Your task to perform on an android device: Clear the shopping cart on amazon. Search for "macbook pro" on amazon, select the first entry, and add it to the cart. Image 0: 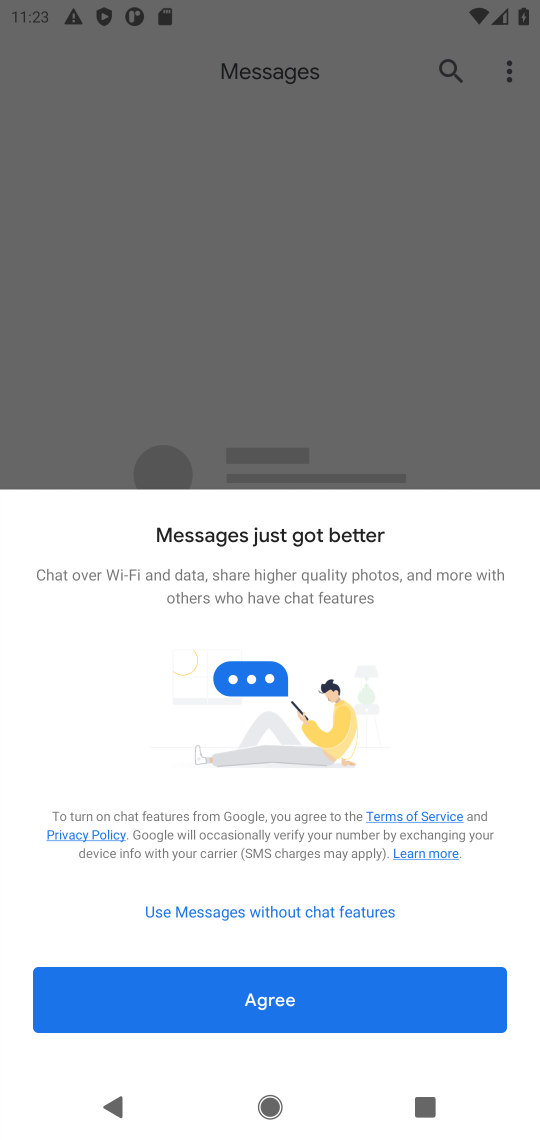
Step 0: press home button
Your task to perform on an android device: Clear the shopping cart on amazon. Search for "macbook pro" on amazon, select the first entry, and add it to the cart. Image 1: 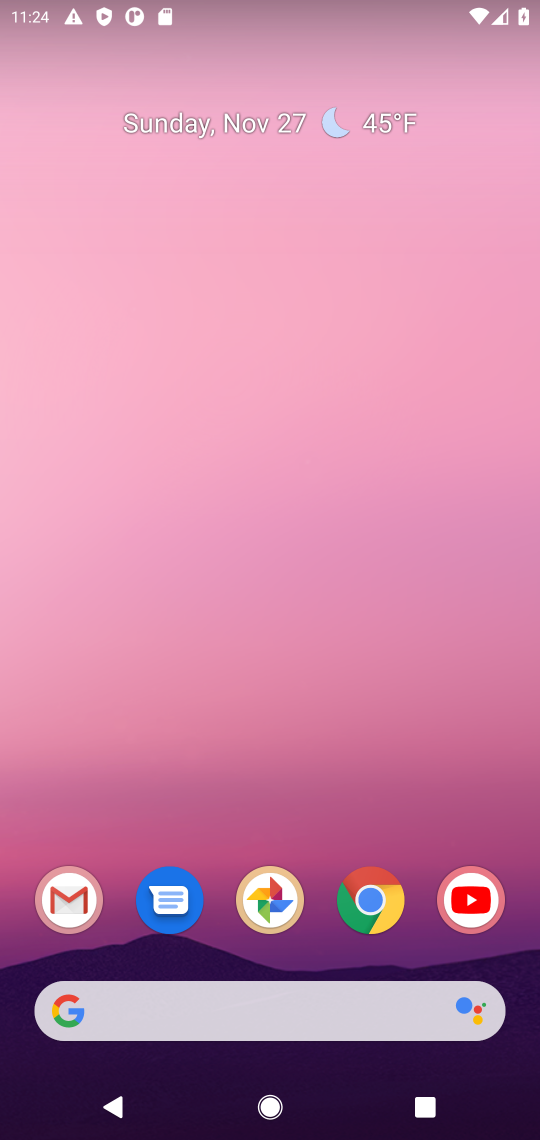
Step 1: click (365, 922)
Your task to perform on an android device: Clear the shopping cart on amazon. Search for "macbook pro" on amazon, select the first entry, and add it to the cart. Image 2: 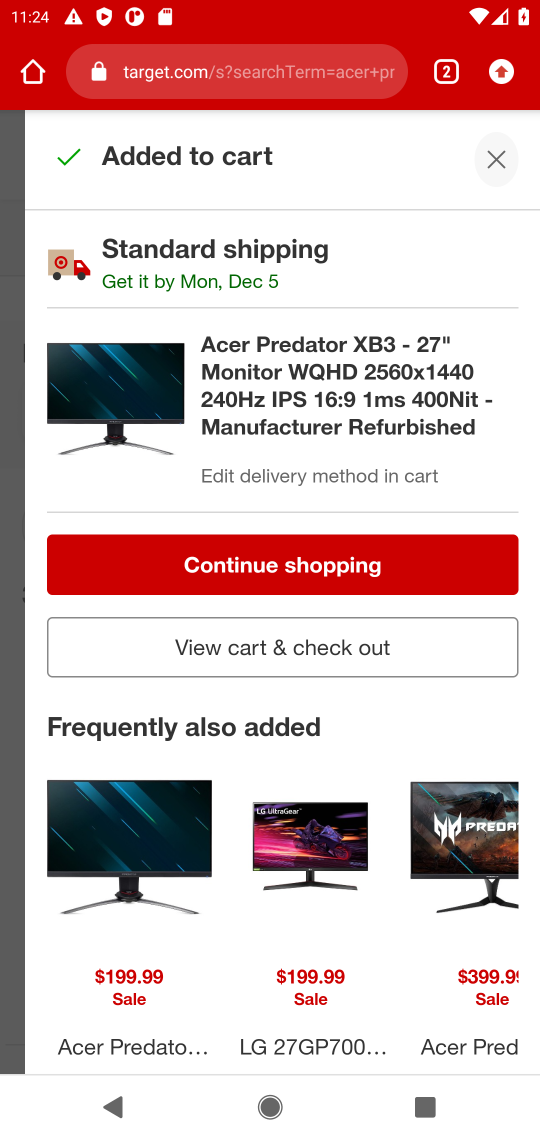
Step 2: click (241, 73)
Your task to perform on an android device: Clear the shopping cart on amazon. Search for "macbook pro" on amazon, select the first entry, and add it to the cart. Image 3: 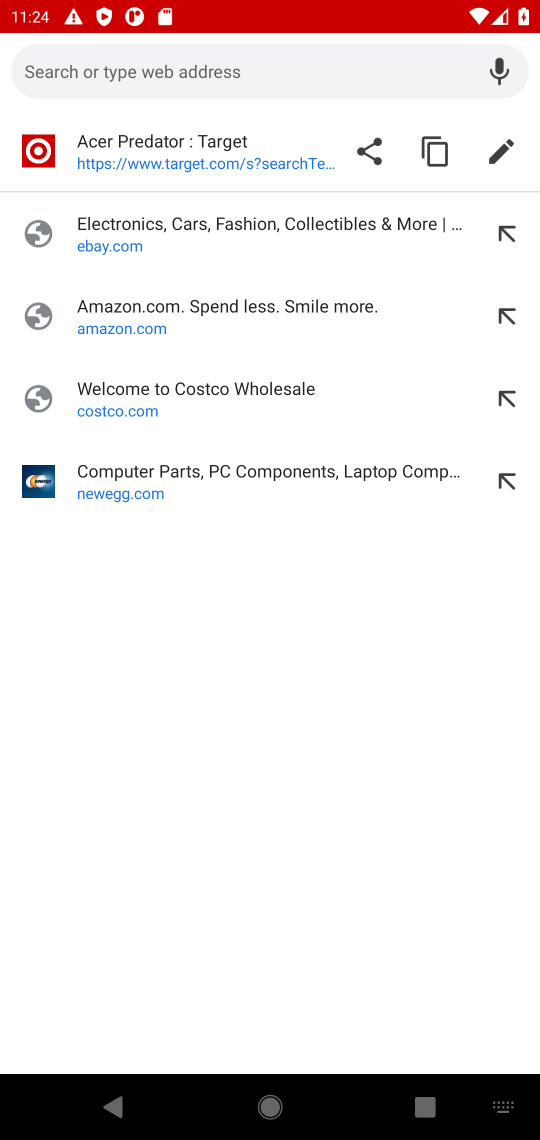
Step 3: click (106, 300)
Your task to perform on an android device: Clear the shopping cart on amazon. Search for "macbook pro" on amazon, select the first entry, and add it to the cart. Image 4: 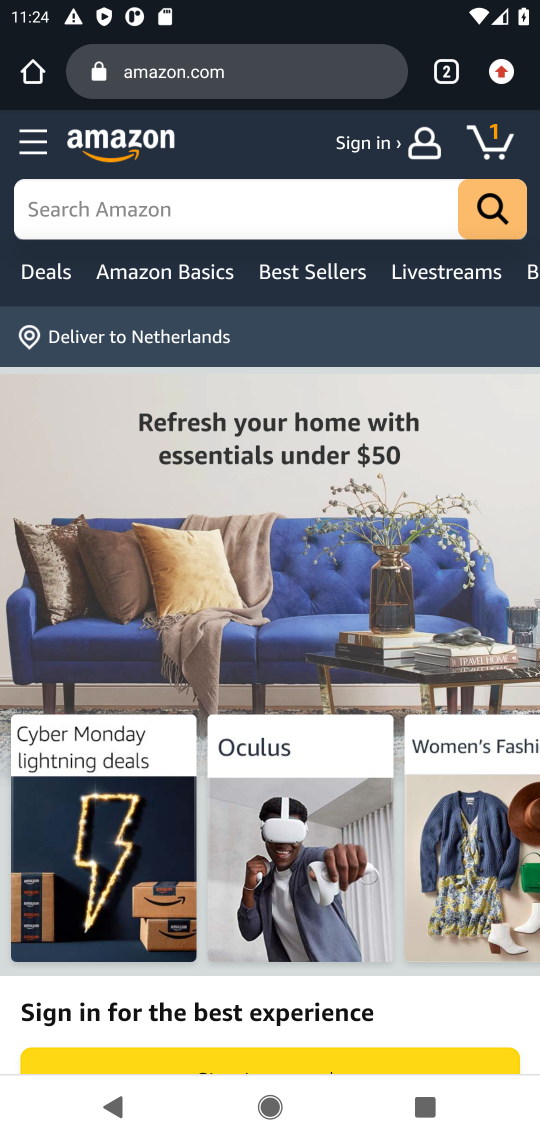
Step 4: click (490, 147)
Your task to perform on an android device: Clear the shopping cart on amazon. Search for "macbook pro" on amazon, select the first entry, and add it to the cart. Image 5: 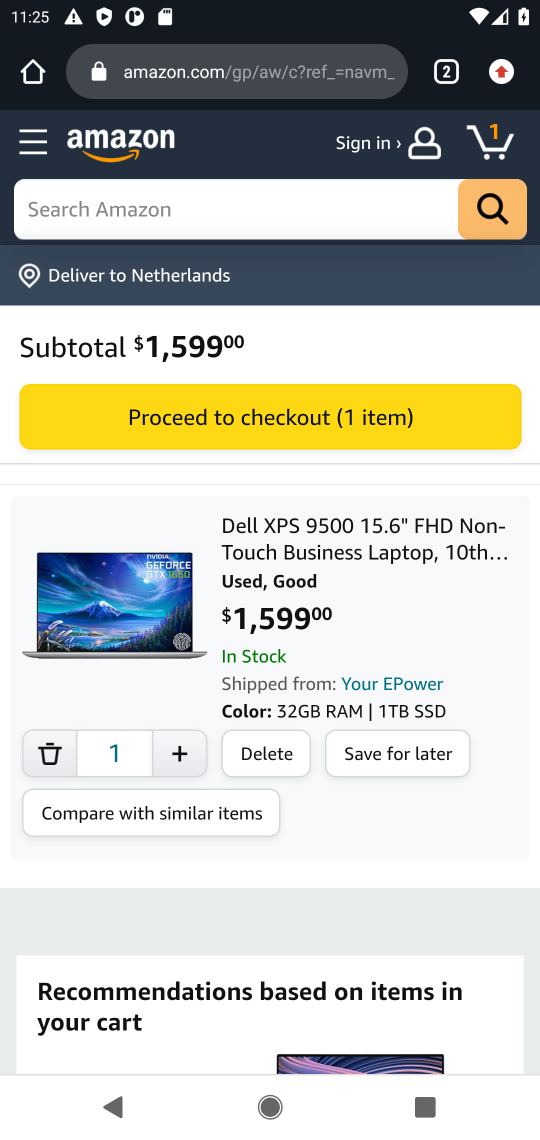
Step 5: click (48, 752)
Your task to perform on an android device: Clear the shopping cart on amazon. Search for "macbook pro" on amazon, select the first entry, and add it to the cart. Image 6: 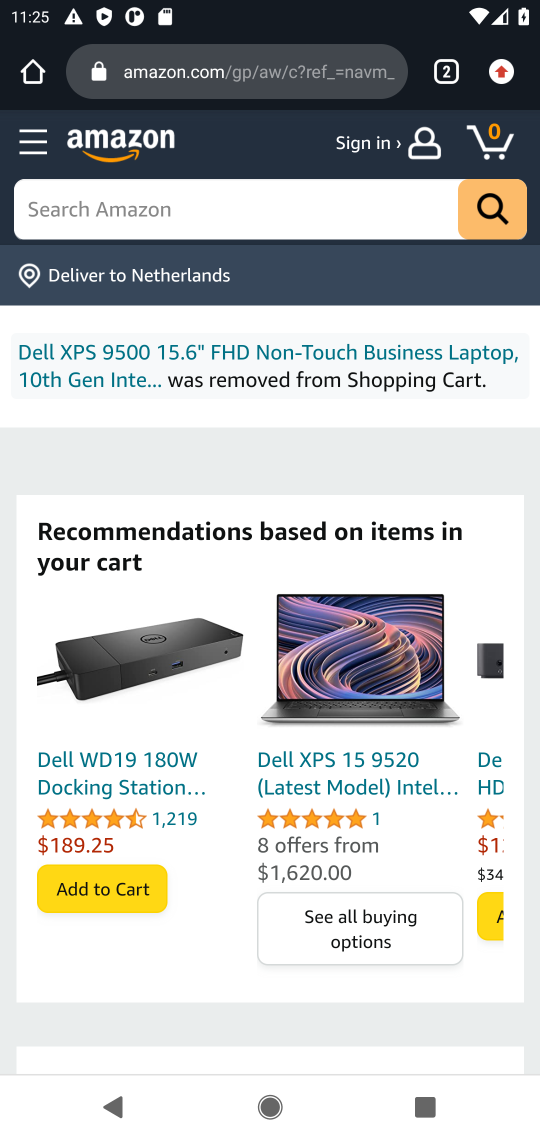
Step 6: click (112, 208)
Your task to perform on an android device: Clear the shopping cart on amazon. Search for "macbook pro" on amazon, select the first entry, and add it to the cart. Image 7: 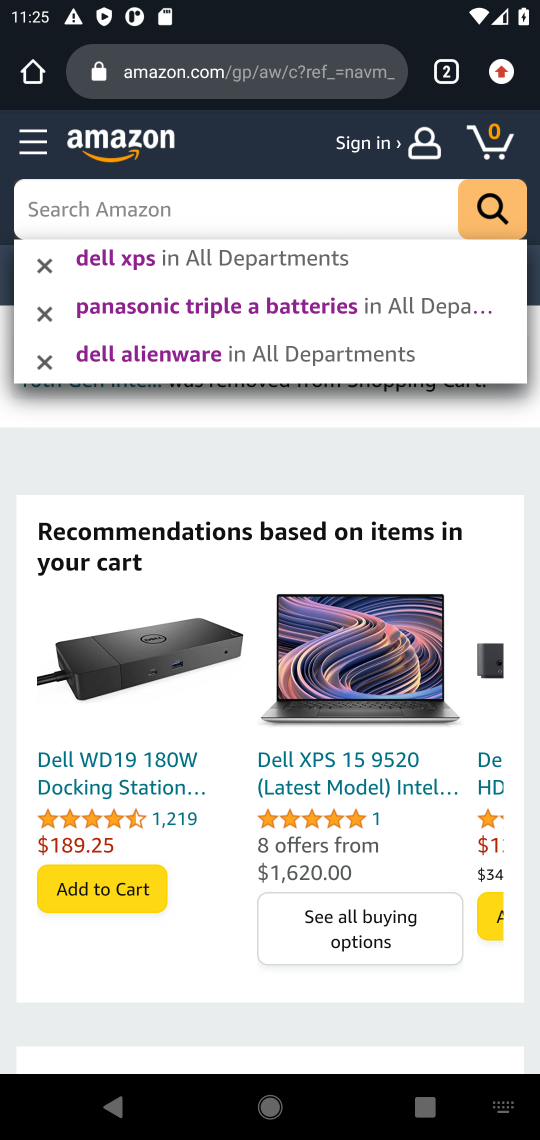
Step 7: type "macbook pro"
Your task to perform on an android device: Clear the shopping cart on amazon. Search for "macbook pro" on amazon, select the first entry, and add it to the cart. Image 8: 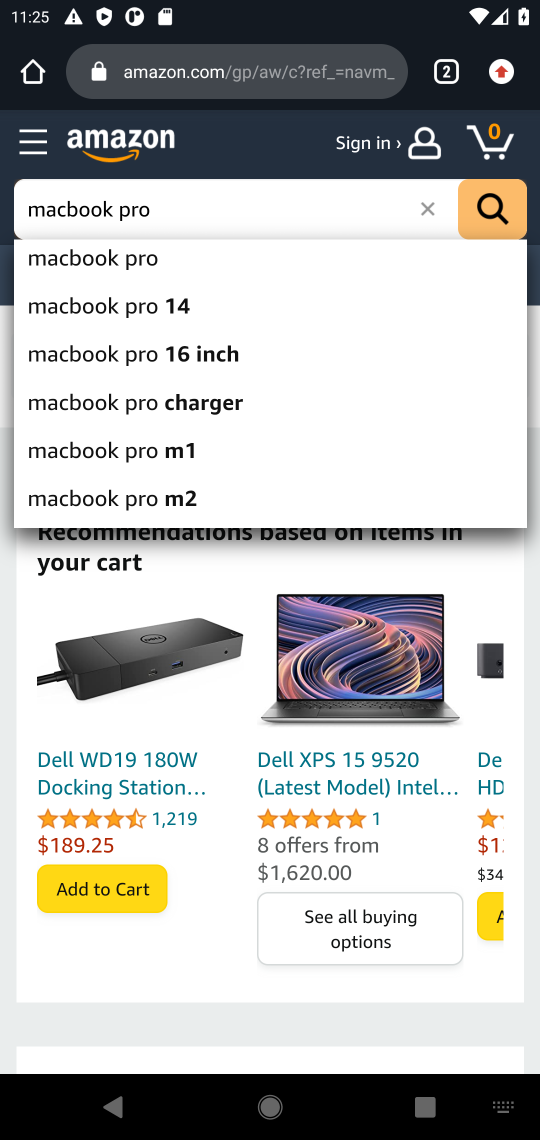
Step 8: click (64, 267)
Your task to perform on an android device: Clear the shopping cart on amazon. Search for "macbook pro" on amazon, select the first entry, and add it to the cart. Image 9: 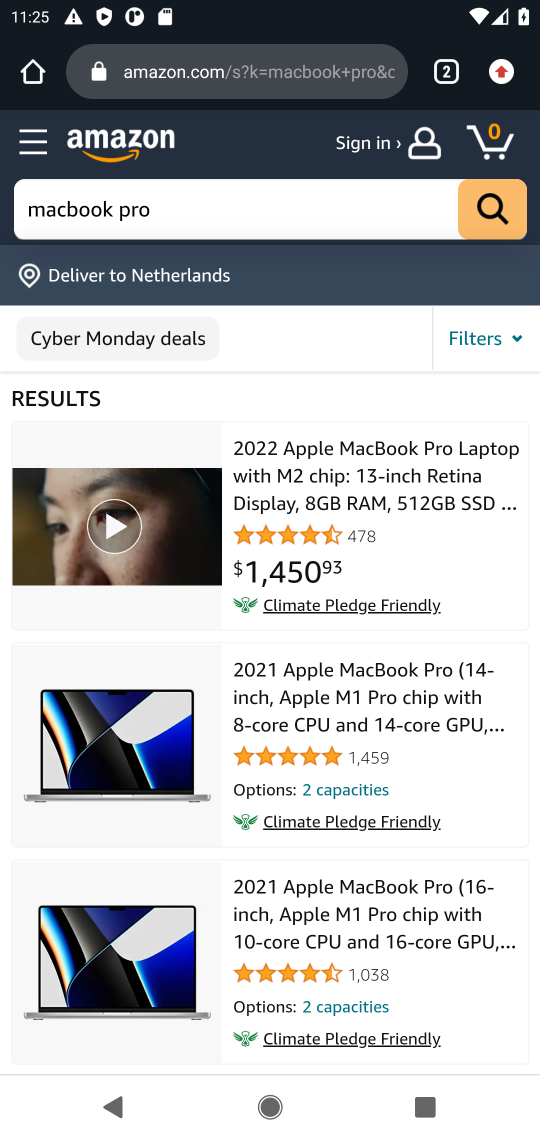
Step 9: click (349, 505)
Your task to perform on an android device: Clear the shopping cart on amazon. Search for "macbook pro" on amazon, select the first entry, and add it to the cart. Image 10: 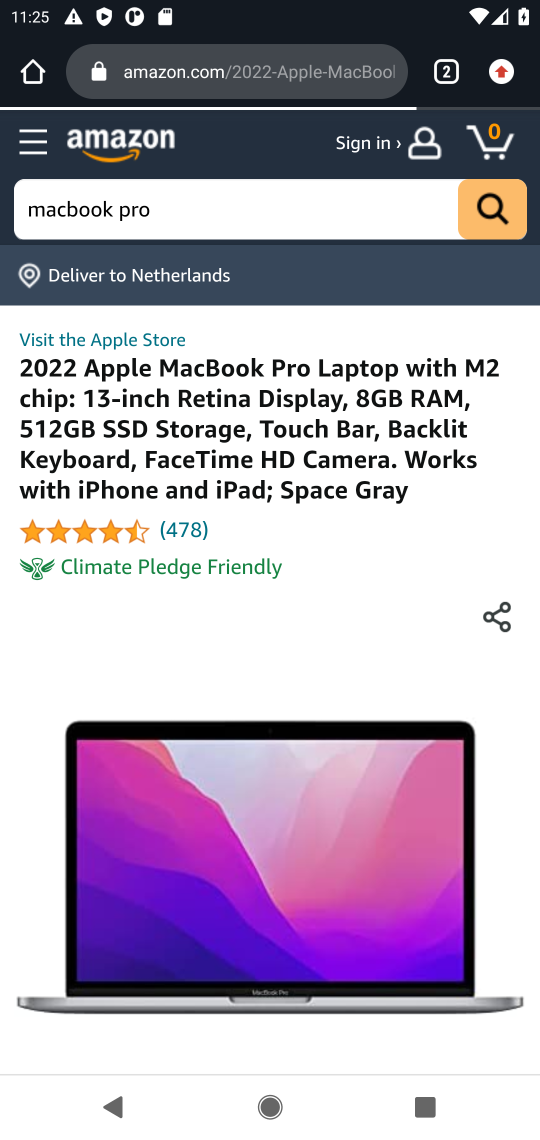
Step 10: task complete